Your task to perform on an android device: Go to calendar. Show me events next week Image 0: 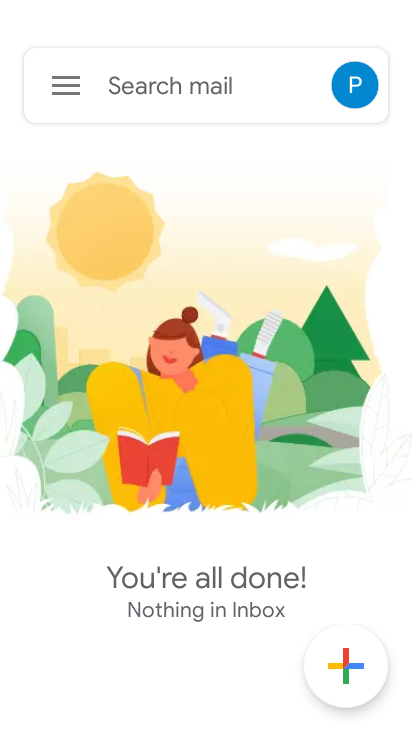
Step 0: press home button
Your task to perform on an android device: Go to calendar. Show me events next week Image 1: 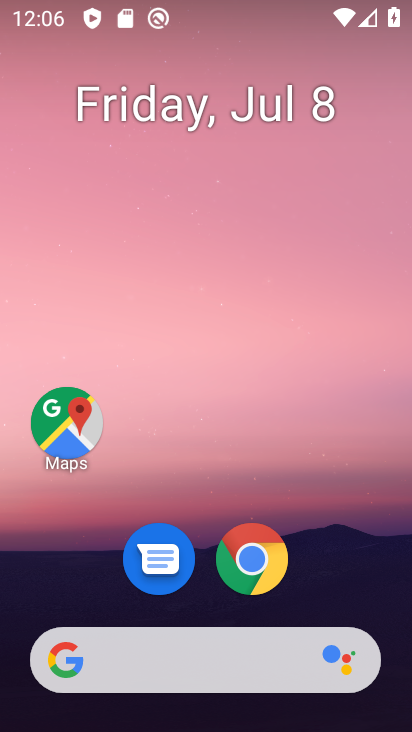
Step 1: drag from (234, 606) to (175, 141)
Your task to perform on an android device: Go to calendar. Show me events next week Image 2: 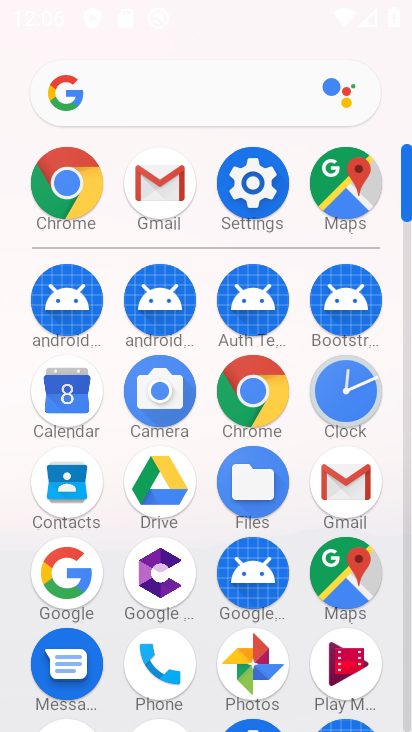
Step 2: click (52, 391)
Your task to perform on an android device: Go to calendar. Show me events next week Image 3: 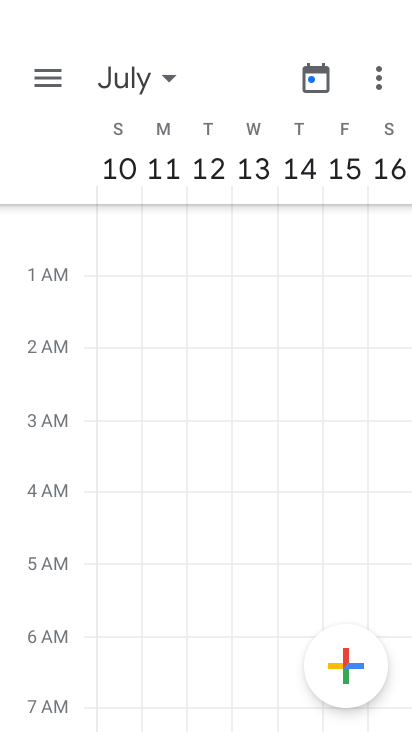
Step 3: task complete